Your task to perform on an android device: turn on data saver in the chrome app Image 0: 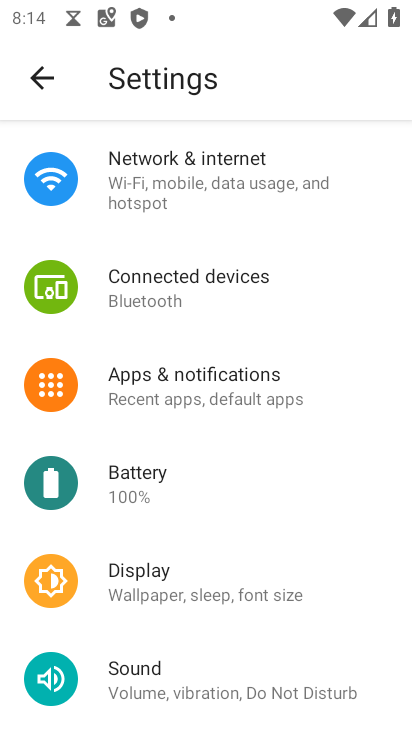
Step 0: press back button
Your task to perform on an android device: turn on data saver in the chrome app Image 1: 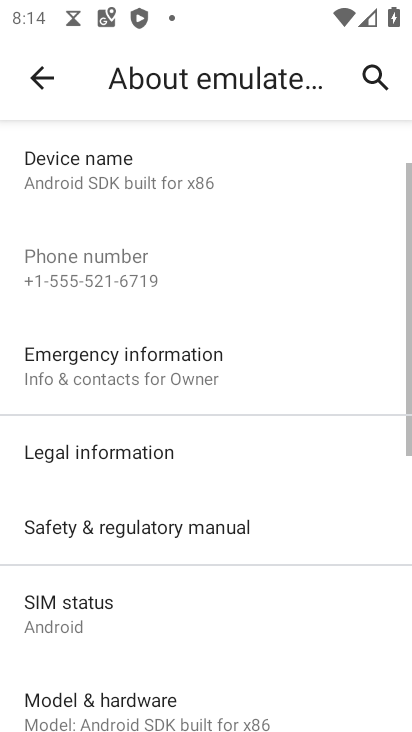
Step 1: press back button
Your task to perform on an android device: turn on data saver in the chrome app Image 2: 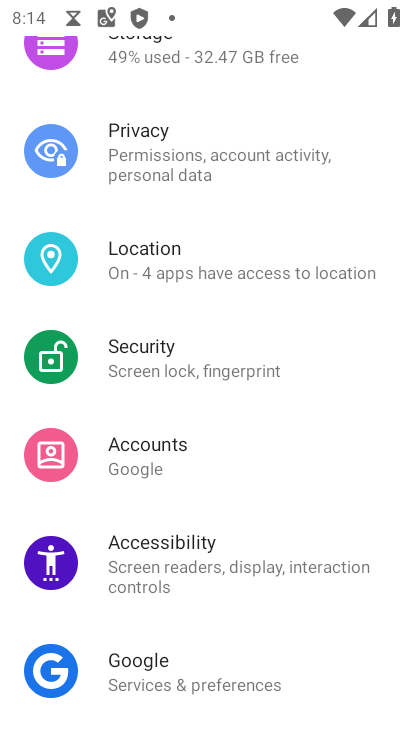
Step 2: press back button
Your task to perform on an android device: turn on data saver in the chrome app Image 3: 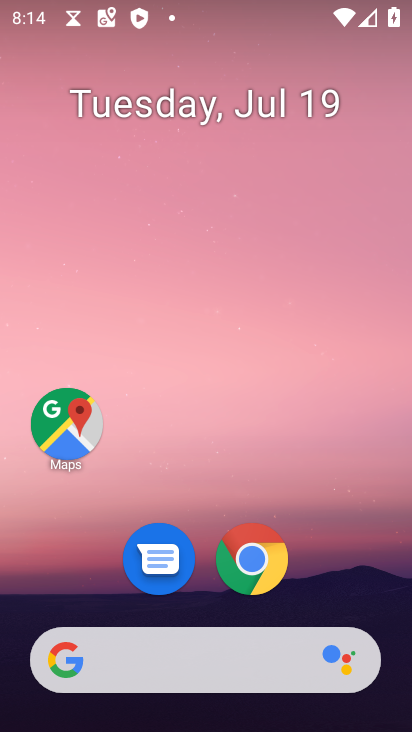
Step 3: click (236, 571)
Your task to perform on an android device: turn on data saver in the chrome app Image 4: 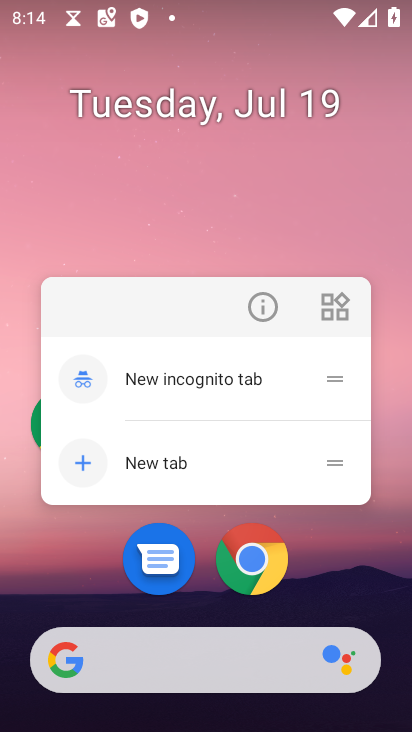
Step 4: click (267, 559)
Your task to perform on an android device: turn on data saver in the chrome app Image 5: 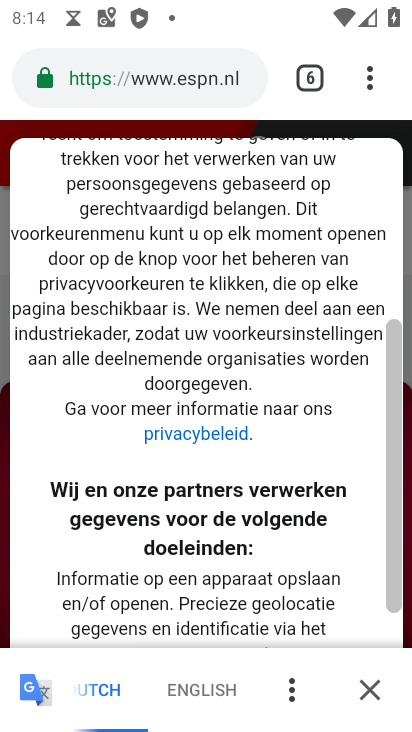
Step 5: drag from (377, 64) to (58, 612)
Your task to perform on an android device: turn on data saver in the chrome app Image 6: 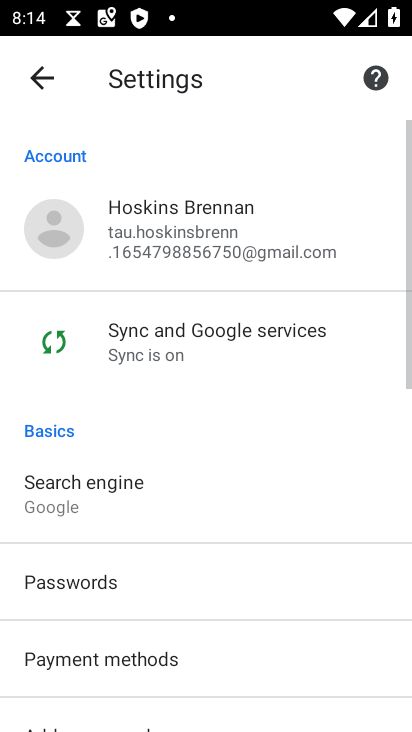
Step 6: drag from (153, 657) to (307, 163)
Your task to perform on an android device: turn on data saver in the chrome app Image 7: 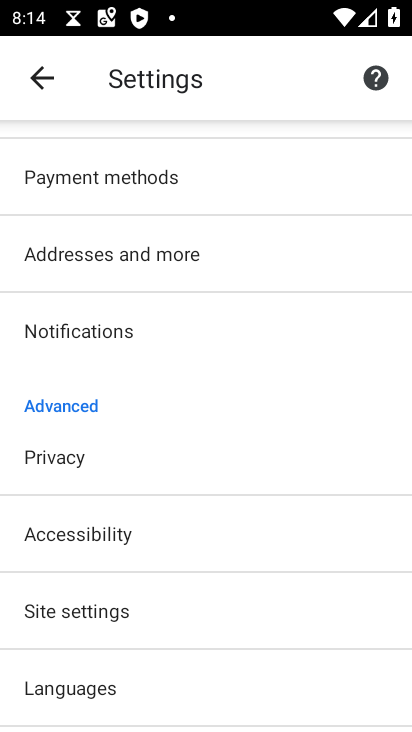
Step 7: drag from (117, 688) to (193, 222)
Your task to perform on an android device: turn on data saver in the chrome app Image 8: 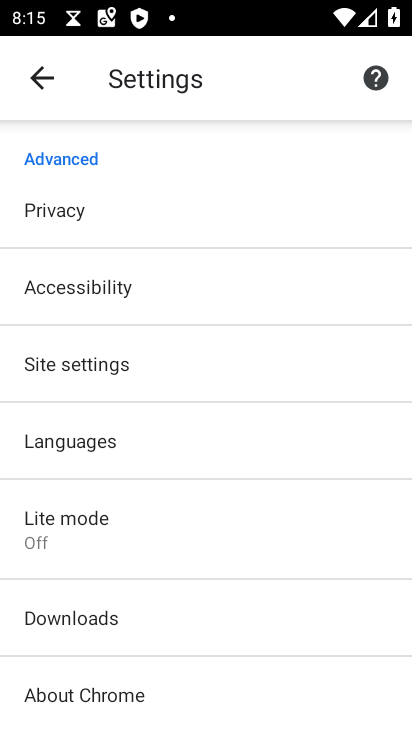
Step 8: click (71, 550)
Your task to perform on an android device: turn on data saver in the chrome app Image 9: 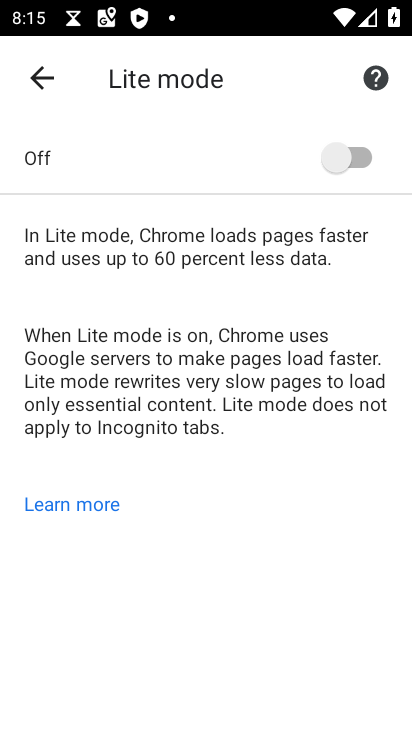
Step 9: click (345, 156)
Your task to perform on an android device: turn on data saver in the chrome app Image 10: 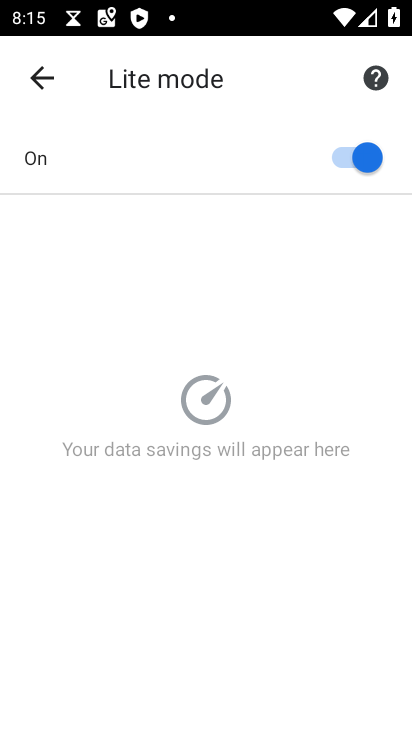
Step 10: task complete